Your task to perform on an android device: Is it going to rain this weekend? Image 0: 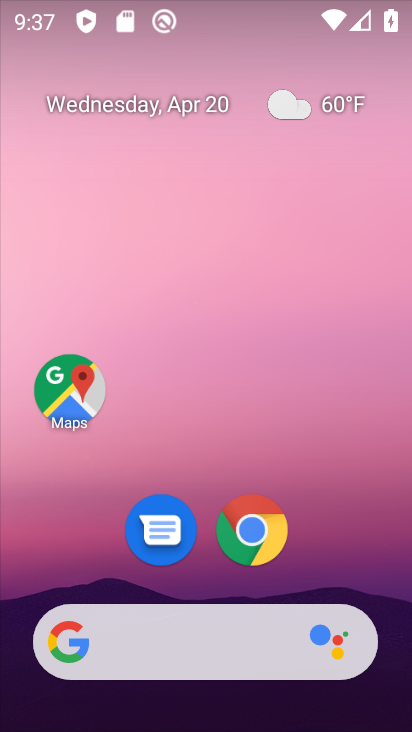
Step 0: click (304, 105)
Your task to perform on an android device: Is it going to rain this weekend? Image 1: 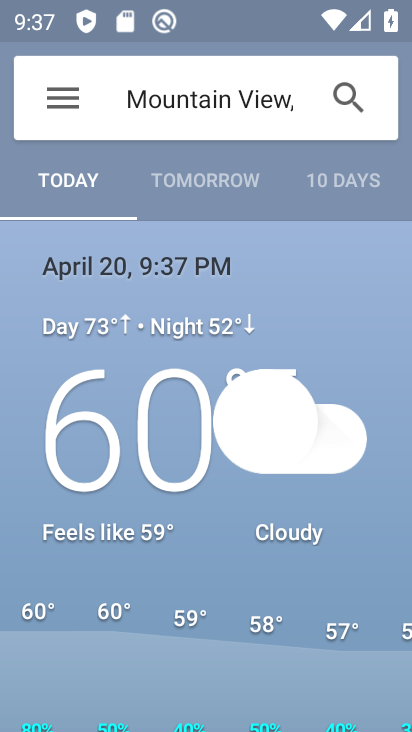
Step 1: click (342, 174)
Your task to perform on an android device: Is it going to rain this weekend? Image 2: 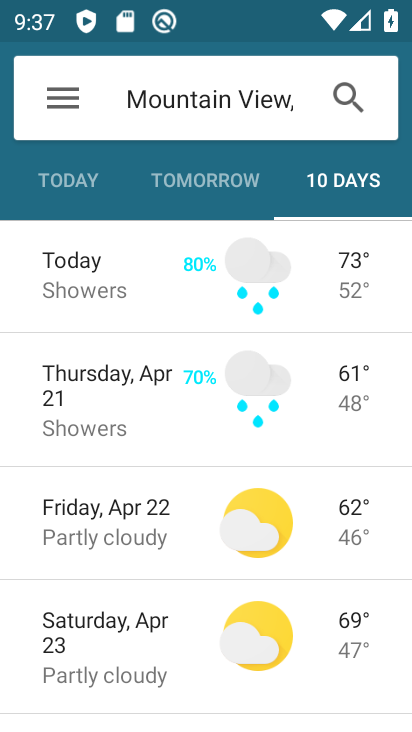
Step 2: click (131, 631)
Your task to perform on an android device: Is it going to rain this weekend? Image 3: 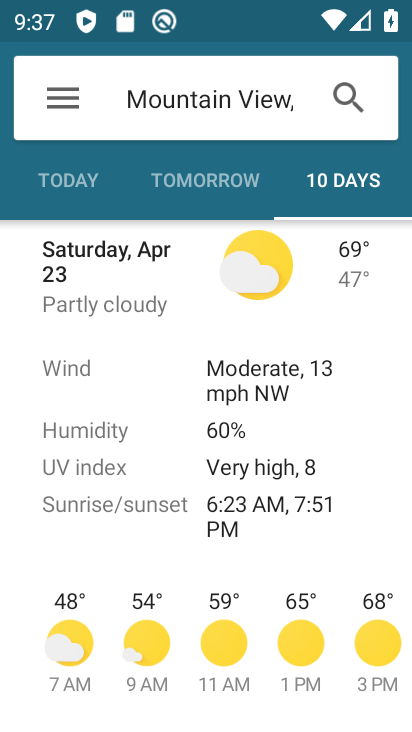
Step 3: task complete